Your task to perform on an android device: Open location settings Image 0: 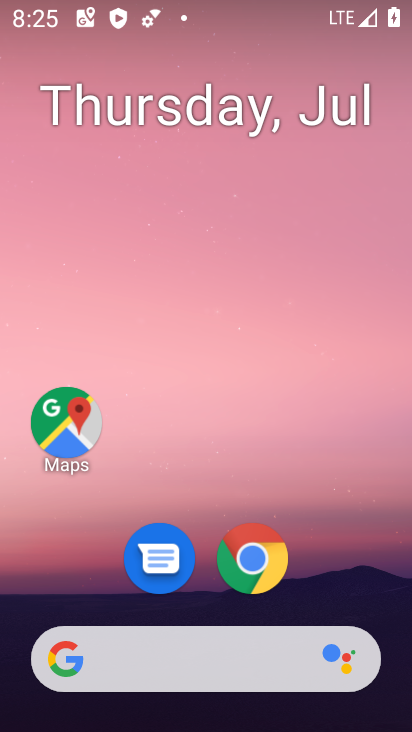
Step 0: drag from (177, 593) to (186, 163)
Your task to perform on an android device: Open location settings Image 1: 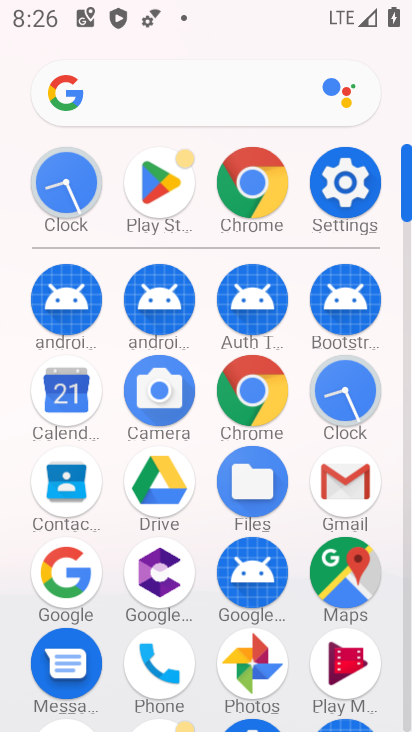
Step 1: click (337, 192)
Your task to perform on an android device: Open location settings Image 2: 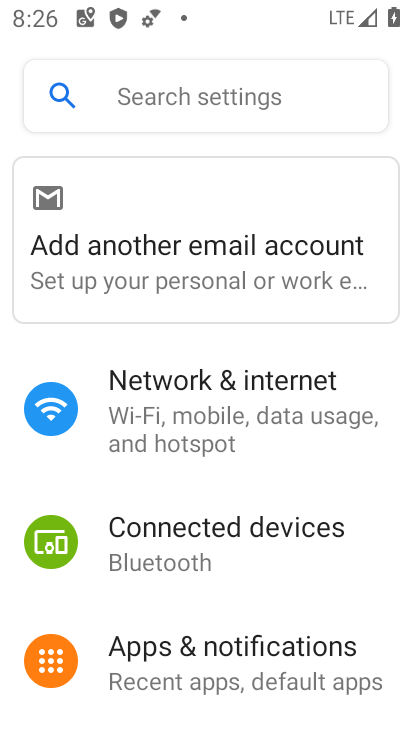
Step 2: drag from (276, 579) to (290, 162)
Your task to perform on an android device: Open location settings Image 3: 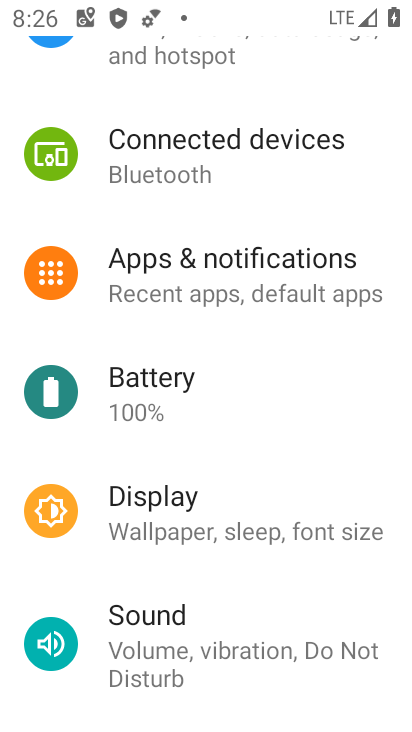
Step 3: drag from (214, 558) to (217, 218)
Your task to perform on an android device: Open location settings Image 4: 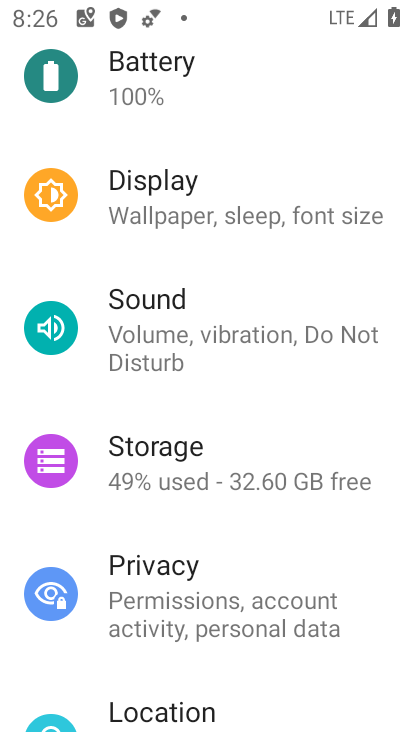
Step 4: click (181, 706)
Your task to perform on an android device: Open location settings Image 5: 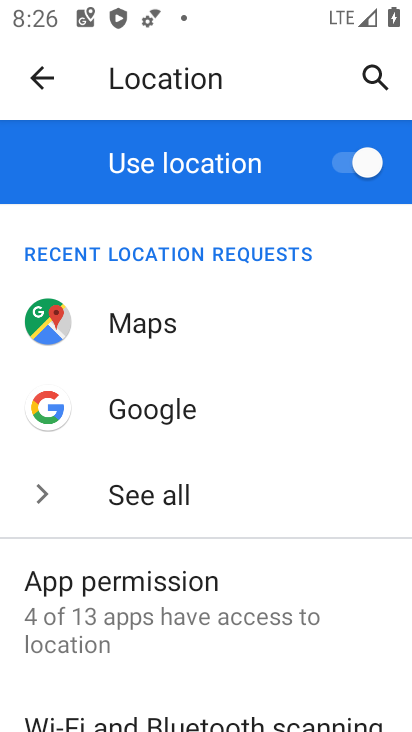
Step 5: task complete